Your task to perform on an android device: turn off javascript in the chrome app Image 0: 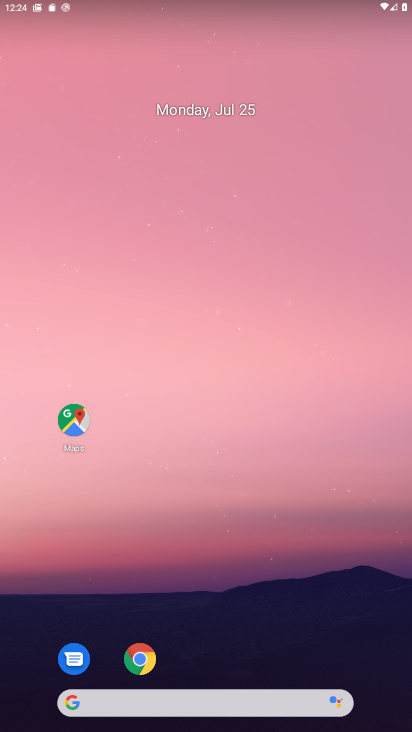
Step 0: drag from (264, 665) to (218, 245)
Your task to perform on an android device: turn off javascript in the chrome app Image 1: 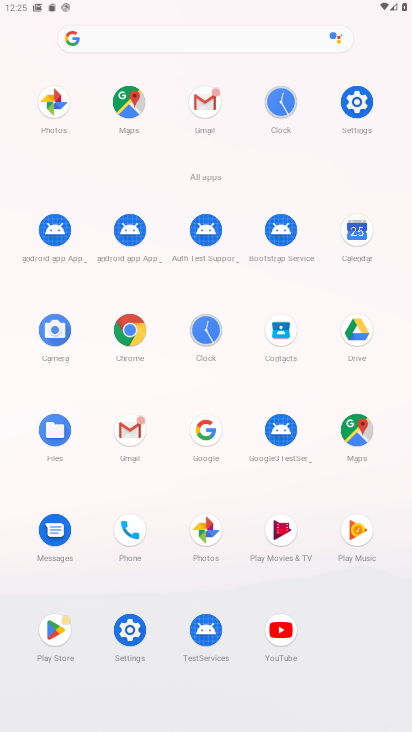
Step 1: click (125, 343)
Your task to perform on an android device: turn off javascript in the chrome app Image 2: 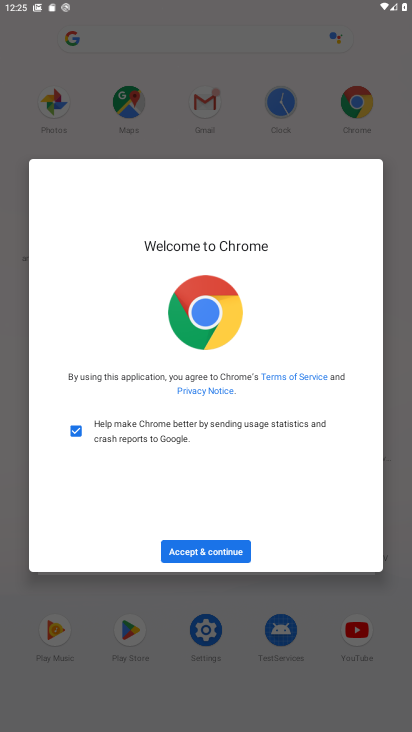
Step 2: click (228, 555)
Your task to perform on an android device: turn off javascript in the chrome app Image 3: 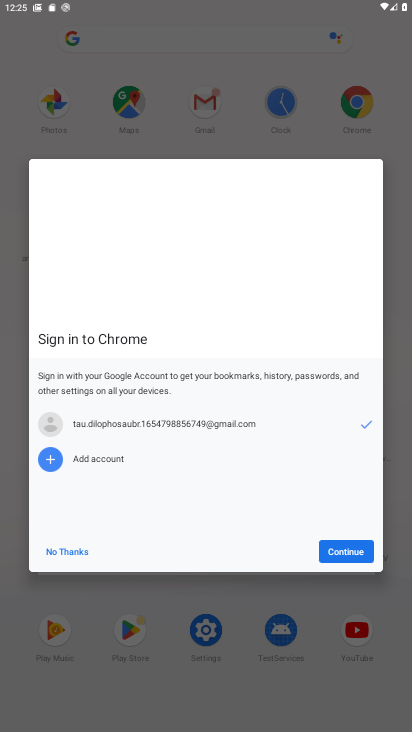
Step 3: click (340, 547)
Your task to perform on an android device: turn off javascript in the chrome app Image 4: 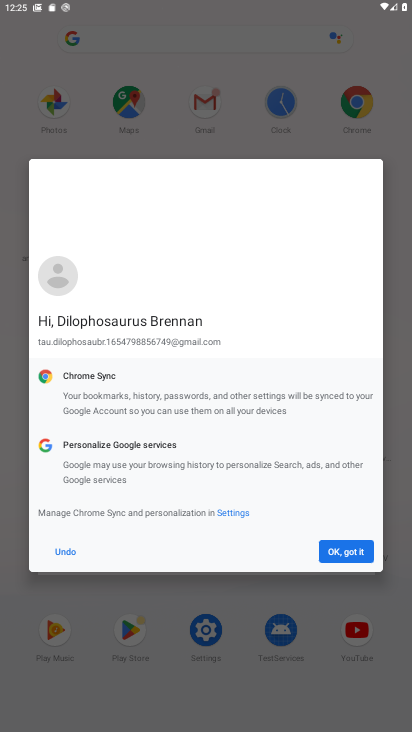
Step 4: click (340, 547)
Your task to perform on an android device: turn off javascript in the chrome app Image 5: 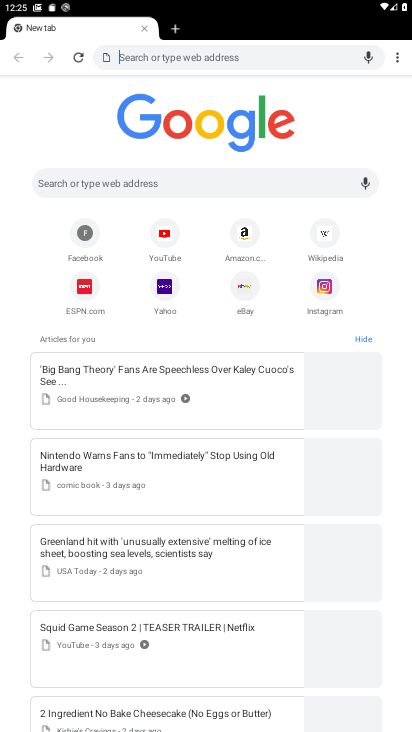
Step 5: click (394, 61)
Your task to perform on an android device: turn off javascript in the chrome app Image 6: 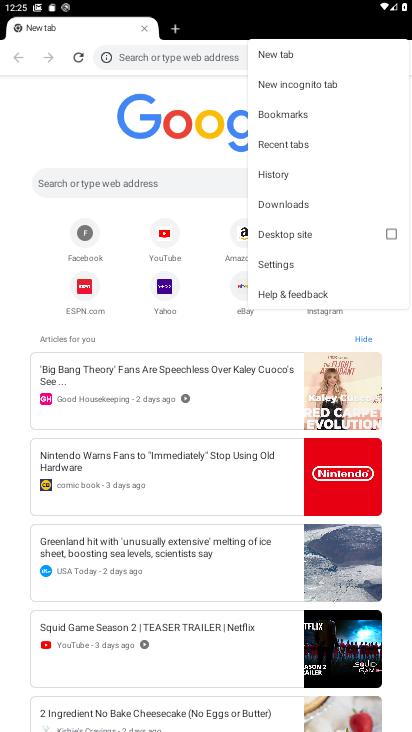
Step 6: click (316, 260)
Your task to perform on an android device: turn off javascript in the chrome app Image 7: 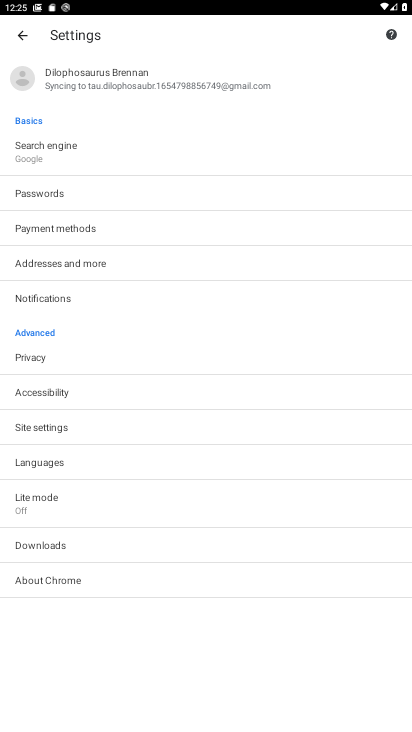
Step 7: click (209, 436)
Your task to perform on an android device: turn off javascript in the chrome app Image 8: 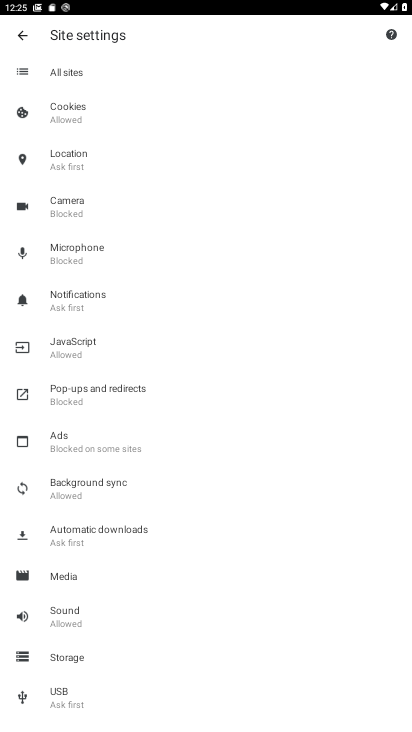
Step 8: click (154, 342)
Your task to perform on an android device: turn off javascript in the chrome app Image 9: 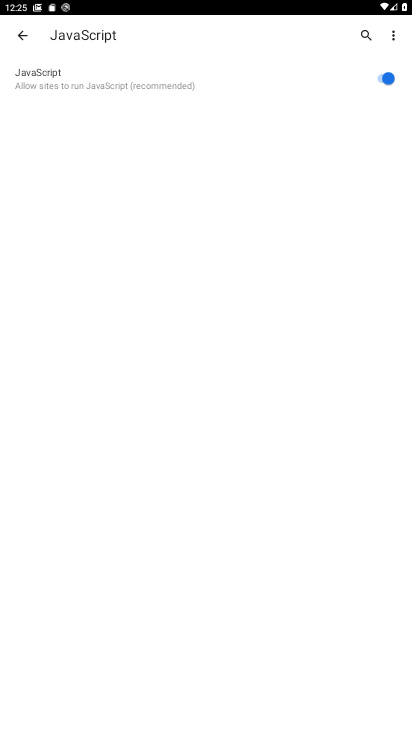
Step 9: click (381, 78)
Your task to perform on an android device: turn off javascript in the chrome app Image 10: 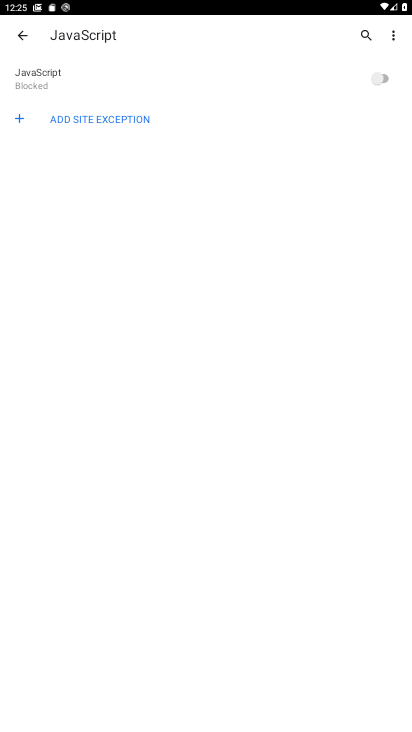
Step 10: task complete